Your task to perform on an android device: Show me productivity apps on the Play Store Image 0: 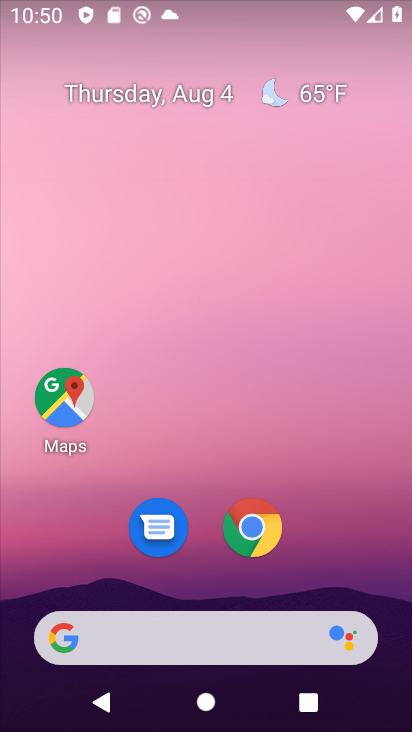
Step 0: drag from (245, 415) to (294, 153)
Your task to perform on an android device: Show me productivity apps on the Play Store Image 1: 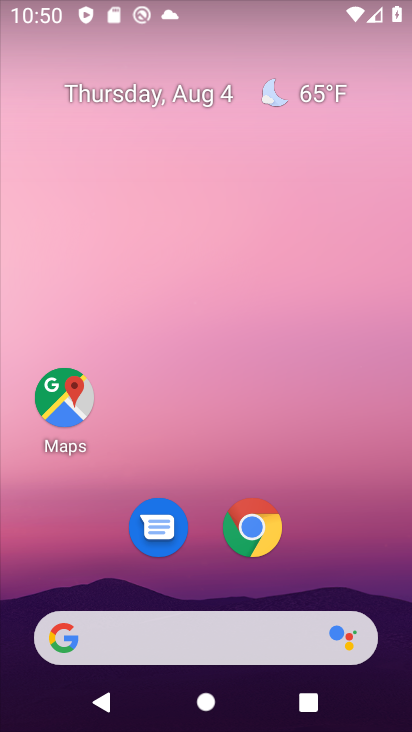
Step 1: drag from (157, 730) to (221, 30)
Your task to perform on an android device: Show me productivity apps on the Play Store Image 2: 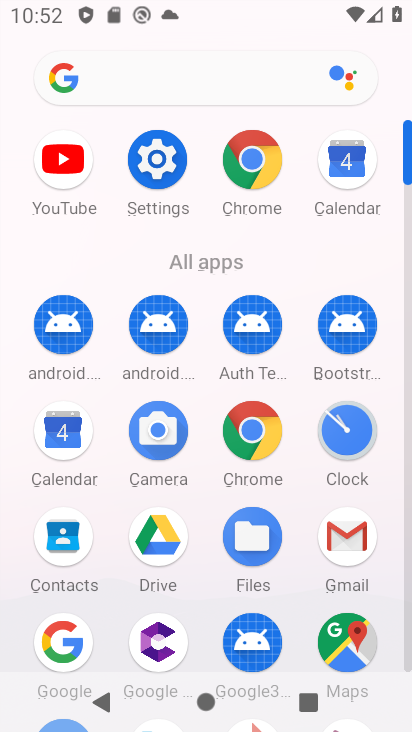
Step 2: drag from (261, 633) to (385, 83)
Your task to perform on an android device: Show me productivity apps on the Play Store Image 3: 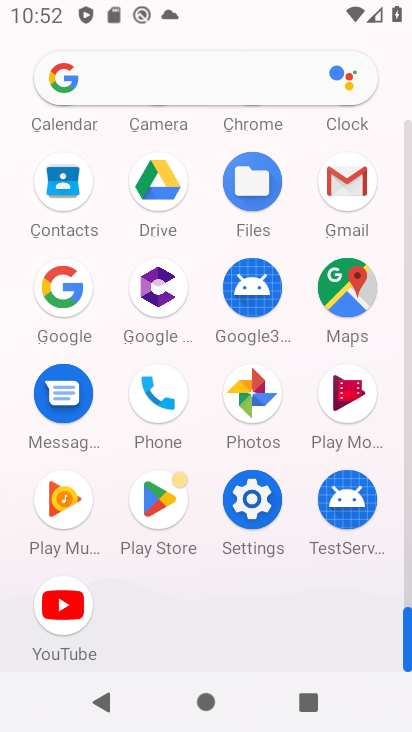
Step 3: click (171, 500)
Your task to perform on an android device: Show me productivity apps on the Play Store Image 4: 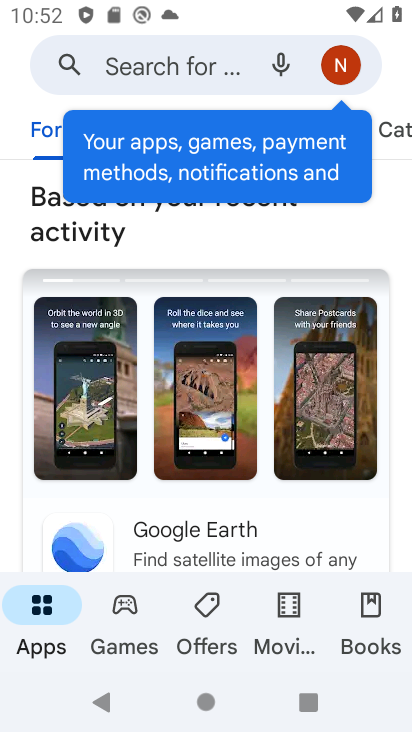
Step 4: click (407, 128)
Your task to perform on an android device: Show me productivity apps on the Play Store Image 5: 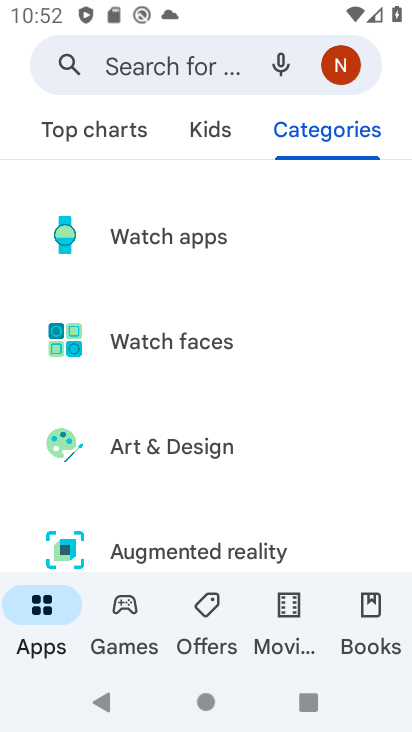
Step 5: drag from (250, 526) to (252, 70)
Your task to perform on an android device: Show me productivity apps on the Play Store Image 6: 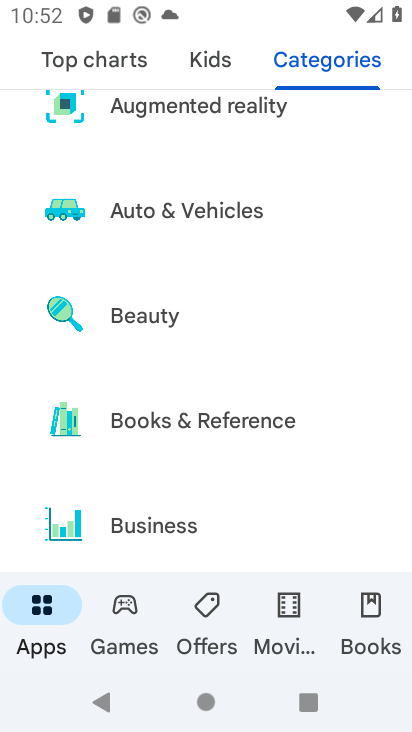
Step 6: drag from (234, 547) to (221, 198)
Your task to perform on an android device: Show me productivity apps on the Play Store Image 7: 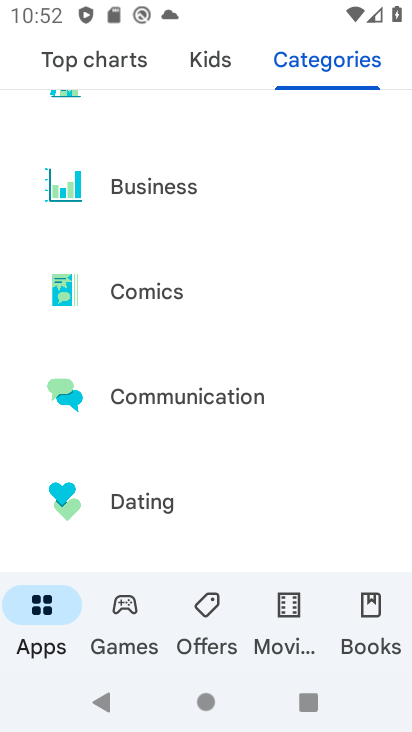
Step 7: drag from (262, 535) to (291, 66)
Your task to perform on an android device: Show me productivity apps on the Play Store Image 8: 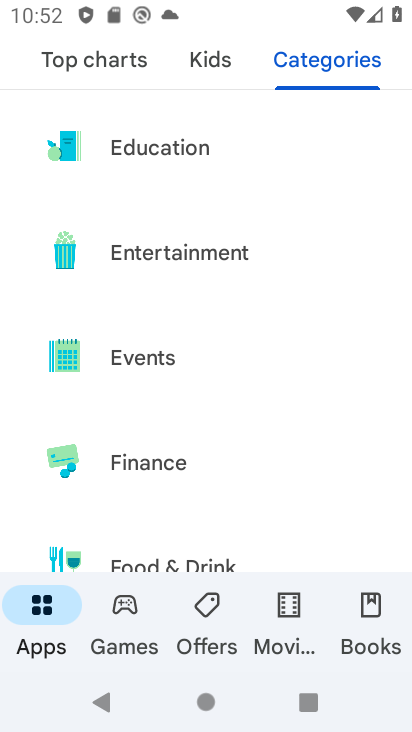
Step 8: drag from (281, 485) to (291, 32)
Your task to perform on an android device: Show me productivity apps on the Play Store Image 9: 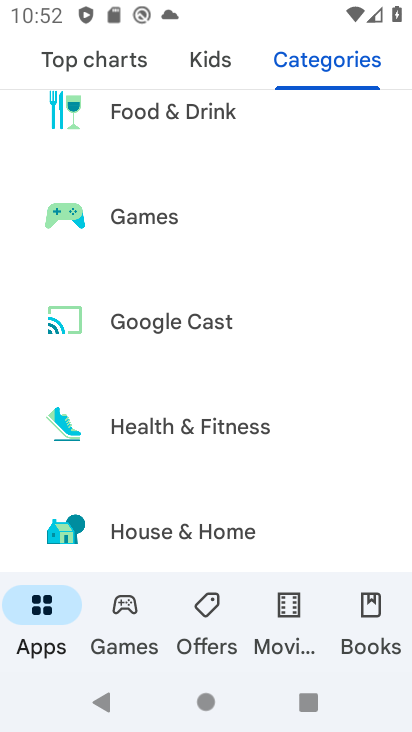
Step 9: drag from (233, 475) to (261, 4)
Your task to perform on an android device: Show me productivity apps on the Play Store Image 10: 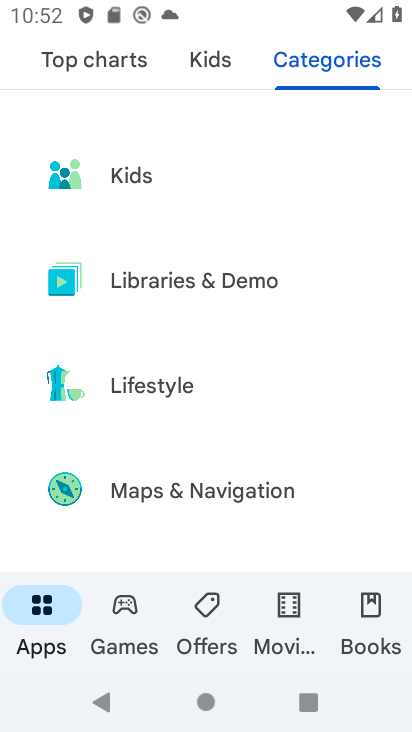
Step 10: drag from (272, 503) to (272, 18)
Your task to perform on an android device: Show me productivity apps on the Play Store Image 11: 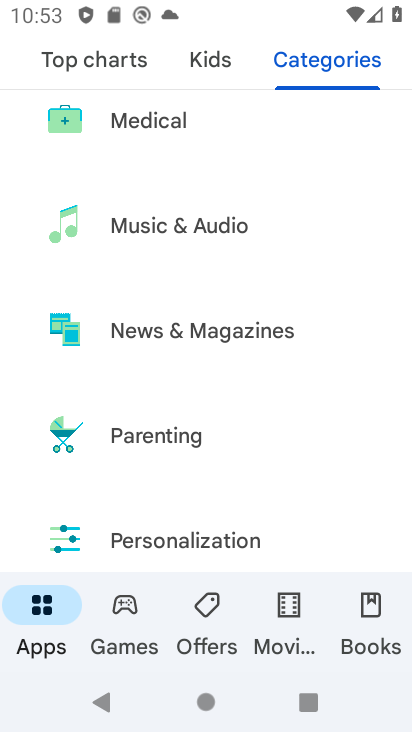
Step 11: drag from (231, 507) to (246, 100)
Your task to perform on an android device: Show me productivity apps on the Play Store Image 12: 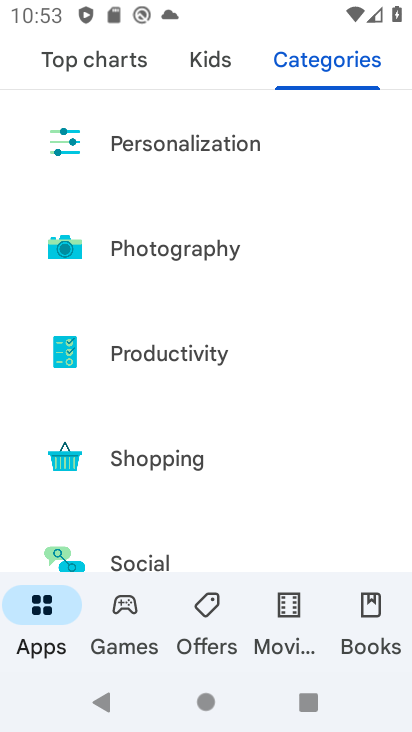
Step 12: click (161, 356)
Your task to perform on an android device: Show me productivity apps on the Play Store Image 13: 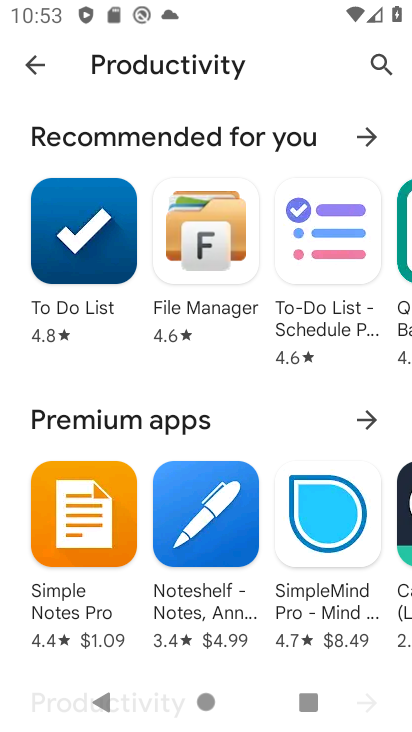
Step 13: task complete